Your task to perform on an android device: Open Google Chrome and open the bookmarks view Image 0: 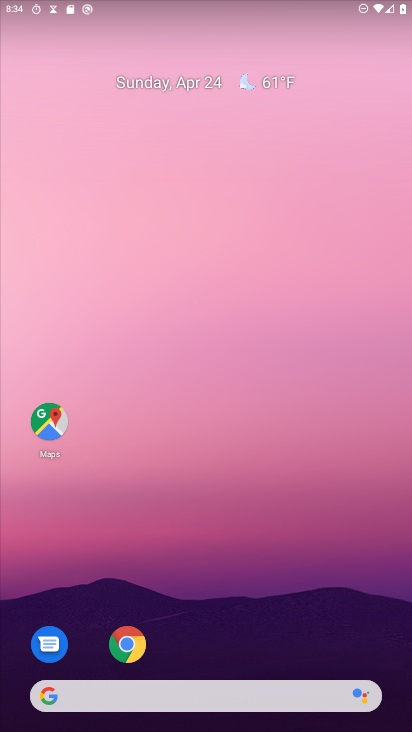
Step 0: click (169, 137)
Your task to perform on an android device: Open Google Chrome and open the bookmarks view Image 1: 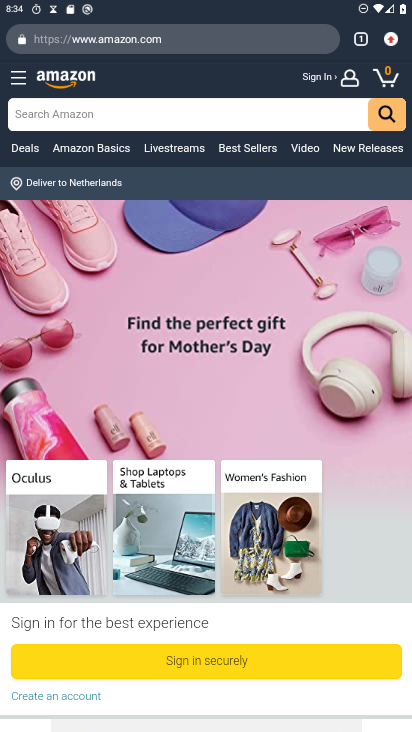
Step 1: click (403, 39)
Your task to perform on an android device: Open Google Chrome and open the bookmarks view Image 2: 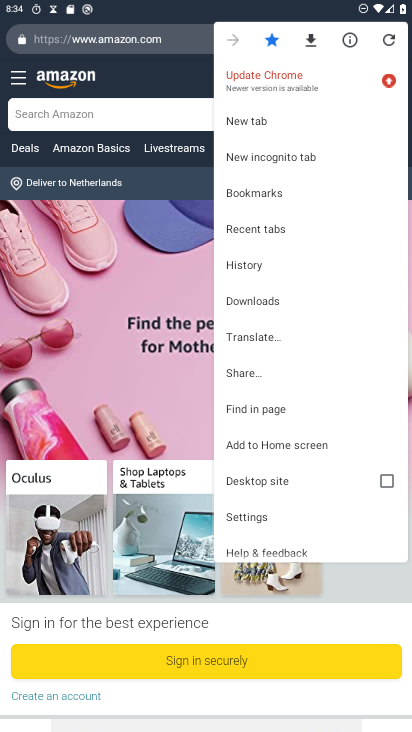
Step 2: click (275, 197)
Your task to perform on an android device: Open Google Chrome and open the bookmarks view Image 3: 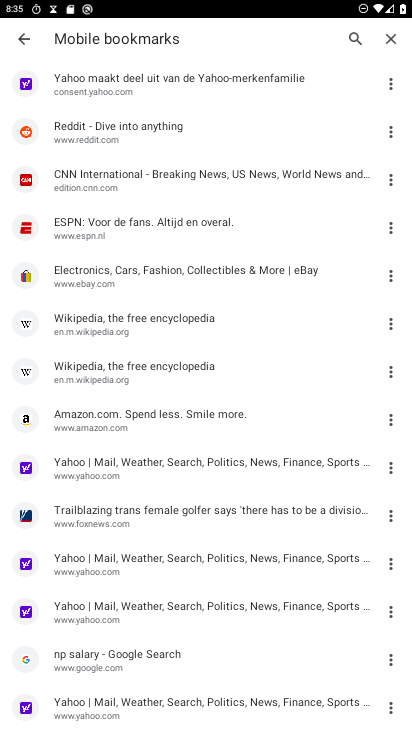
Step 3: click (162, 514)
Your task to perform on an android device: Open Google Chrome and open the bookmarks view Image 4: 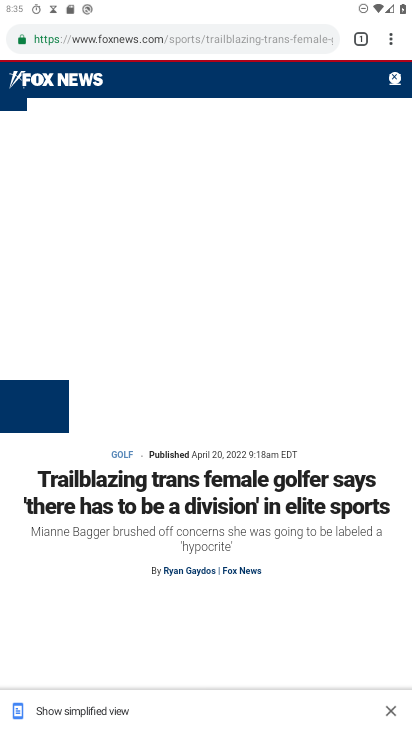
Step 4: task complete